Your task to perform on an android device: Check the weather Image 0: 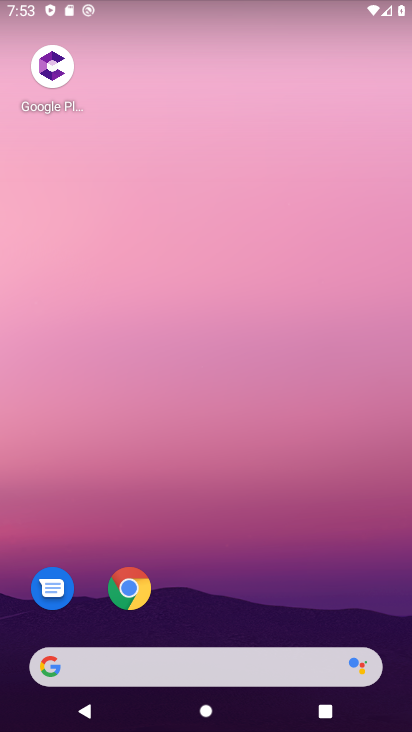
Step 0: drag from (255, 678) to (214, 0)
Your task to perform on an android device: Check the weather Image 1: 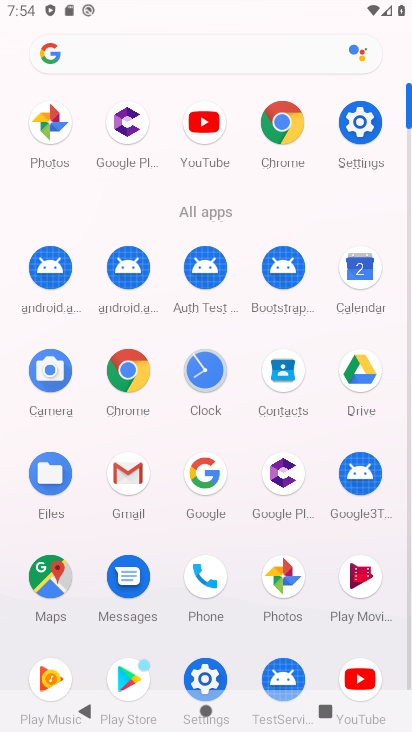
Step 1: click (204, 483)
Your task to perform on an android device: Check the weather Image 2: 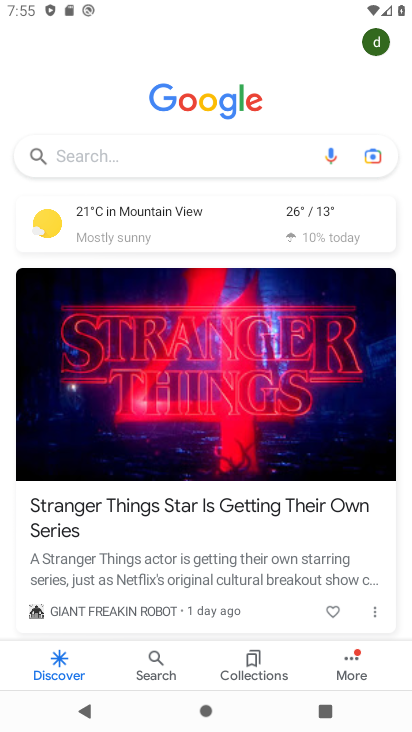
Step 2: click (45, 225)
Your task to perform on an android device: Check the weather Image 3: 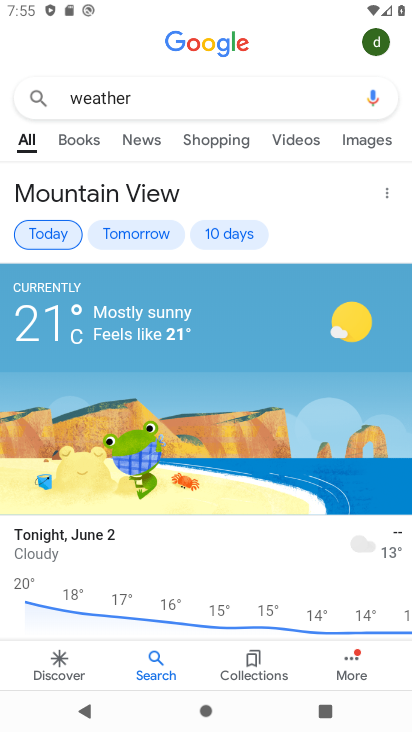
Step 3: task complete